Your task to perform on an android device: turn off smart reply in the gmail app Image 0: 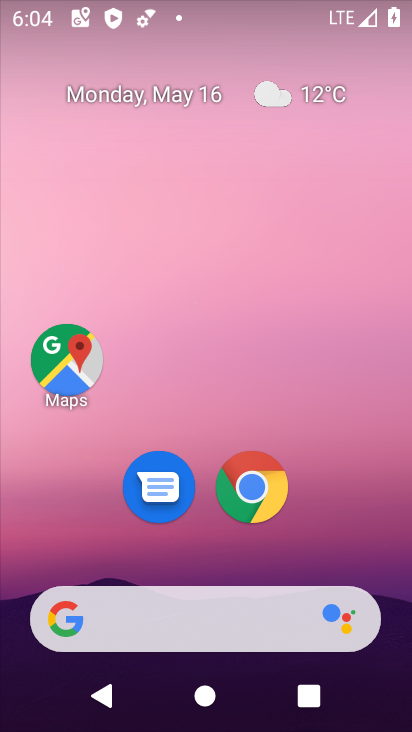
Step 0: drag from (350, 483) to (302, 144)
Your task to perform on an android device: turn off smart reply in the gmail app Image 1: 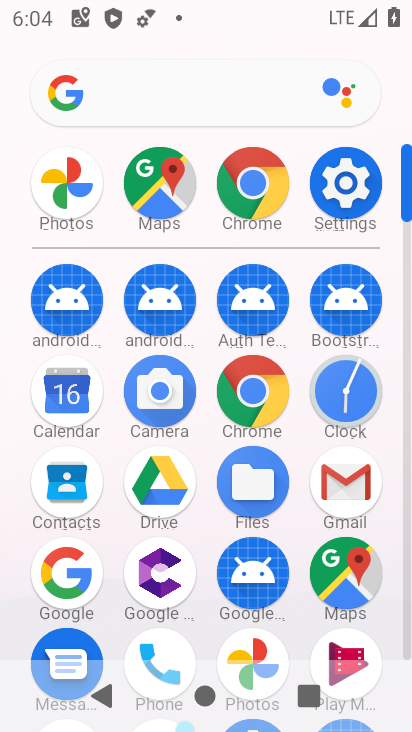
Step 1: click (339, 479)
Your task to perform on an android device: turn off smart reply in the gmail app Image 2: 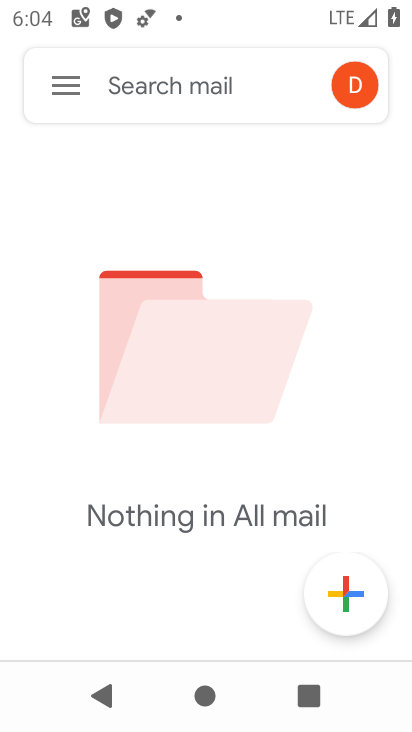
Step 2: click (46, 81)
Your task to perform on an android device: turn off smart reply in the gmail app Image 3: 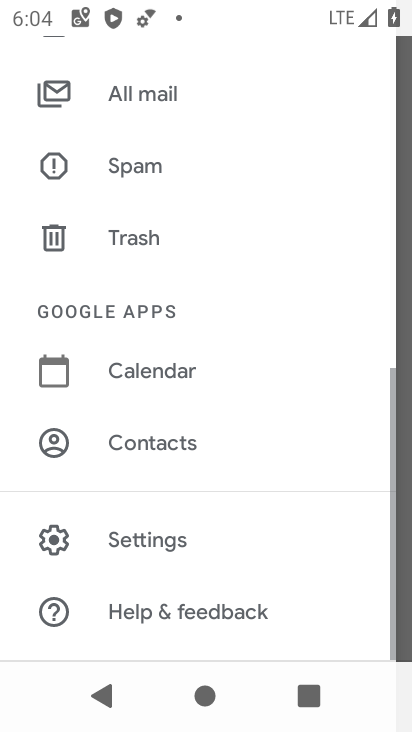
Step 3: drag from (149, 544) to (210, 230)
Your task to perform on an android device: turn off smart reply in the gmail app Image 4: 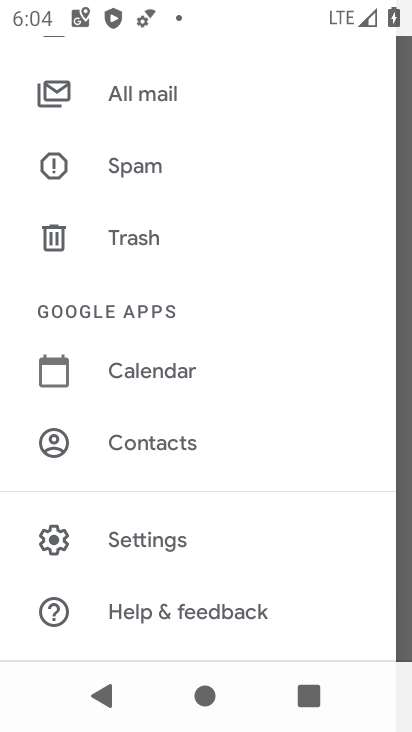
Step 4: click (175, 530)
Your task to perform on an android device: turn off smart reply in the gmail app Image 5: 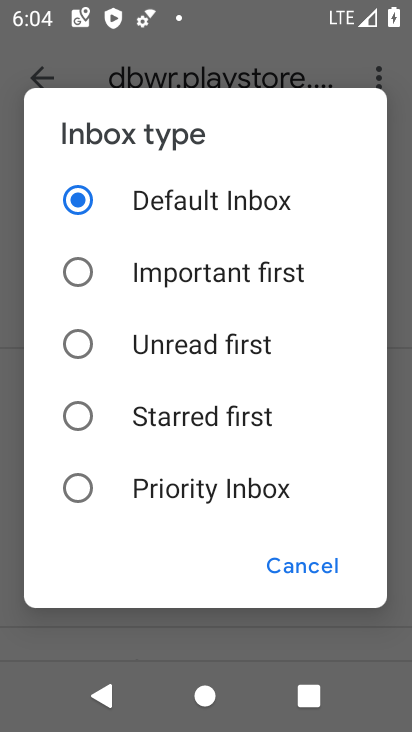
Step 5: click (316, 557)
Your task to perform on an android device: turn off smart reply in the gmail app Image 6: 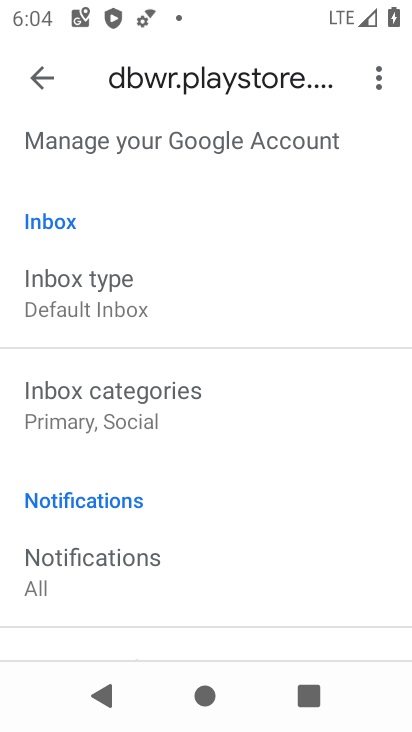
Step 6: drag from (309, 553) to (321, 151)
Your task to perform on an android device: turn off smart reply in the gmail app Image 7: 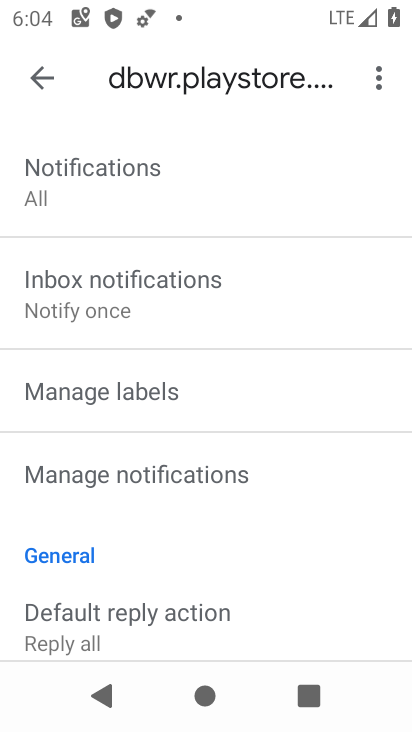
Step 7: drag from (237, 590) to (261, 85)
Your task to perform on an android device: turn off smart reply in the gmail app Image 8: 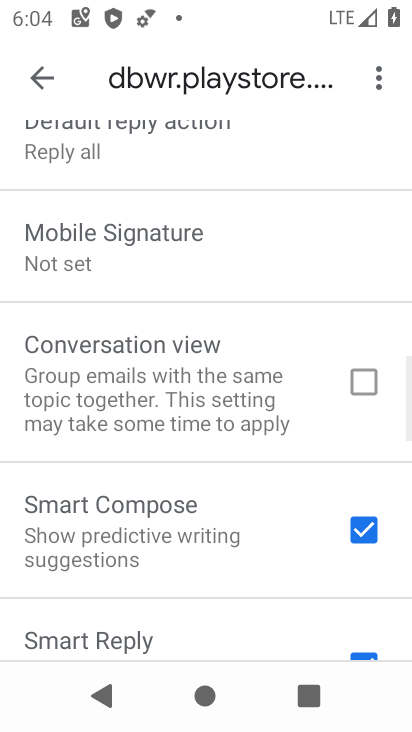
Step 8: drag from (234, 523) to (241, 271)
Your task to perform on an android device: turn off smart reply in the gmail app Image 9: 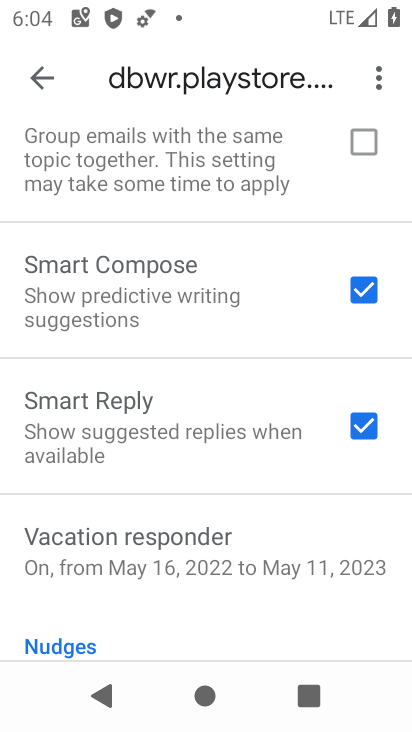
Step 9: click (360, 418)
Your task to perform on an android device: turn off smart reply in the gmail app Image 10: 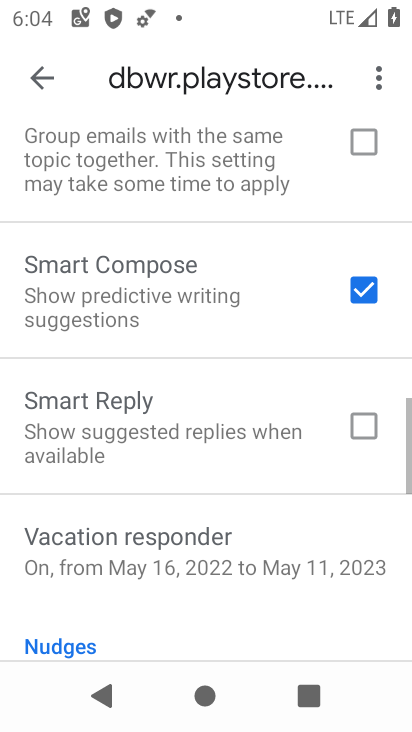
Step 10: task complete